Your task to perform on an android device: Go to accessibility settings Image 0: 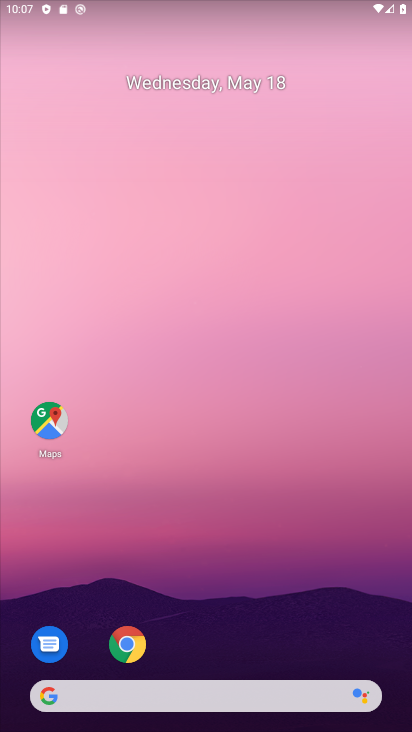
Step 0: drag from (366, 646) to (337, 62)
Your task to perform on an android device: Go to accessibility settings Image 1: 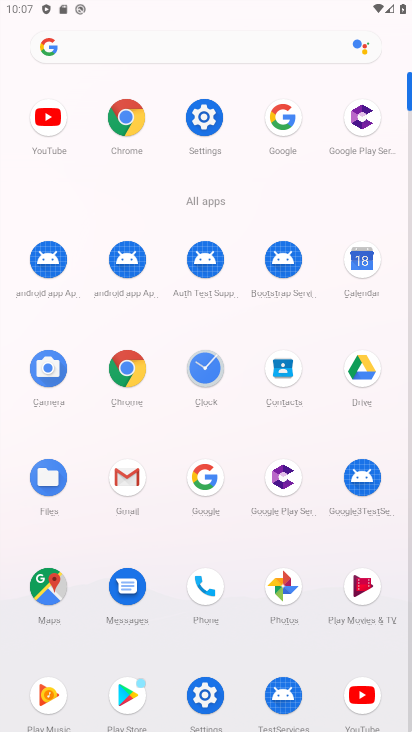
Step 1: click (202, 689)
Your task to perform on an android device: Go to accessibility settings Image 2: 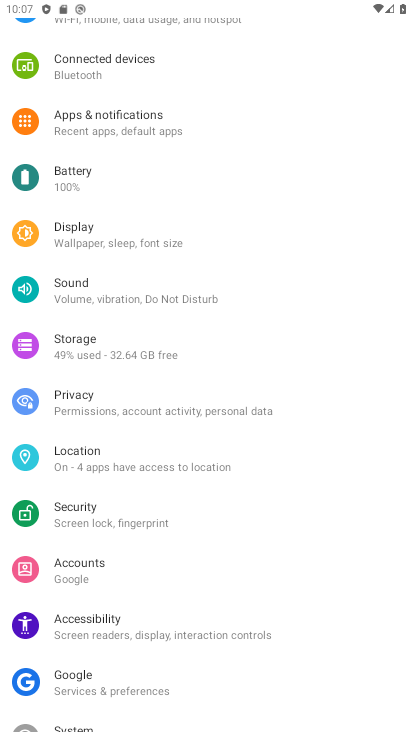
Step 2: click (110, 630)
Your task to perform on an android device: Go to accessibility settings Image 3: 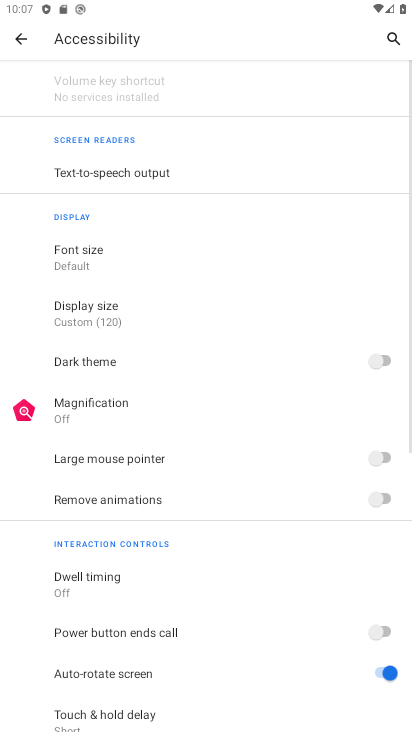
Step 3: task complete